Your task to perform on an android device: open a bookmark in the chrome app Image 0: 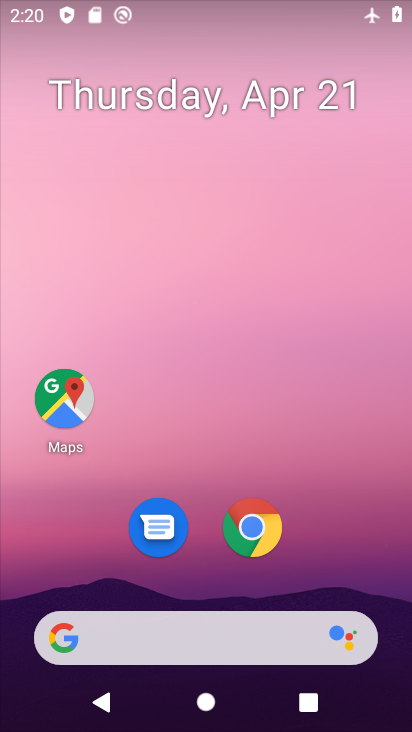
Step 0: click (251, 528)
Your task to perform on an android device: open a bookmark in the chrome app Image 1: 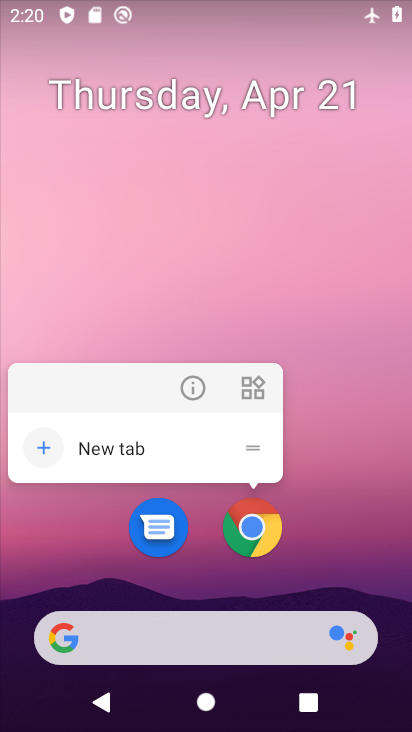
Step 1: click (249, 533)
Your task to perform on an android device: open a bookmark in the chrome app Image 2: 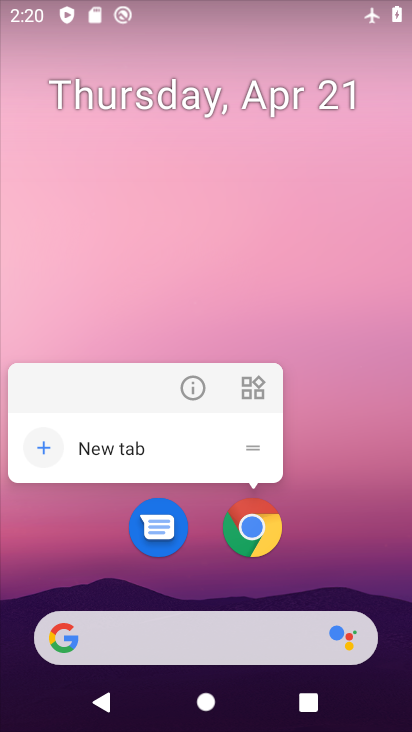
Step 2: click (237, 532)
Your task to perform on an android device: open a bookmark in the chrome app Image 3: 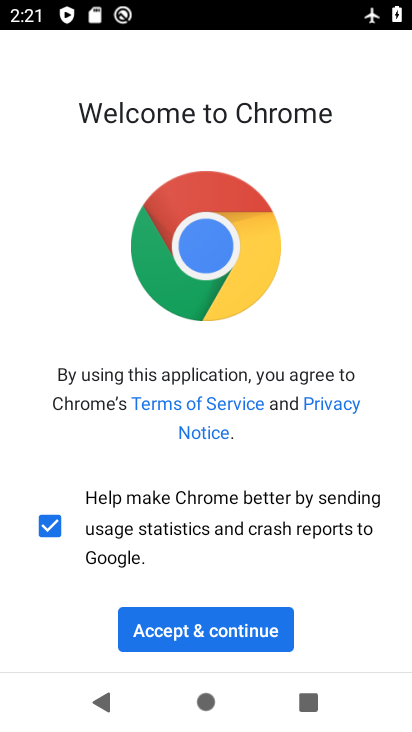
Step 3: click (227, 616)
Your task to perform on an android device: open a bookmark in the chrome app Image 4: 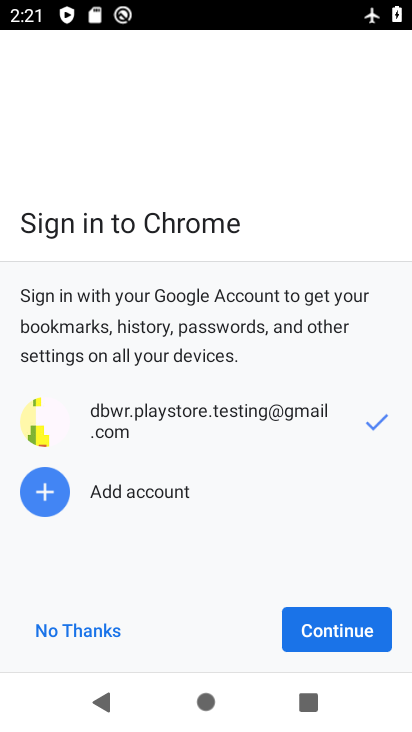
Step 4: click (338, 633)
Your task to perform on an android device: open a bookmark in the chrome app Image 5: 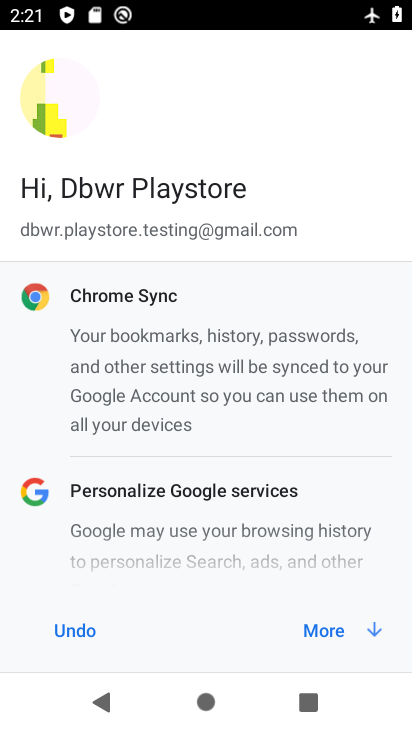
Step 5: click (338, 633)
Your task to perform on an android device: open a bookmark in the chrome app Image 6: 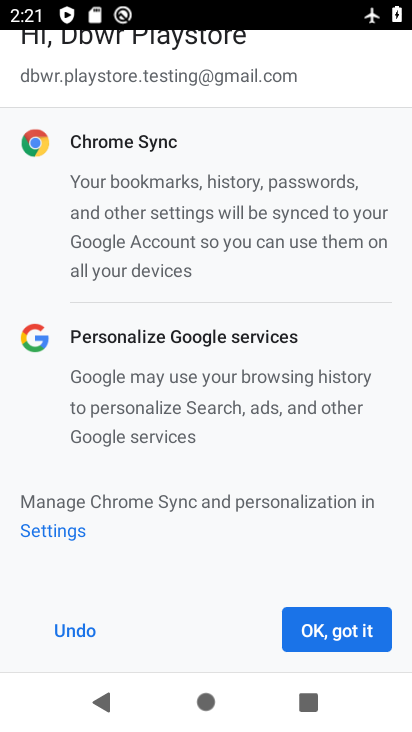
Step 6: click (338, 633)
Your task to perform on an android device: open a bookmark in the chrome app Image 7: 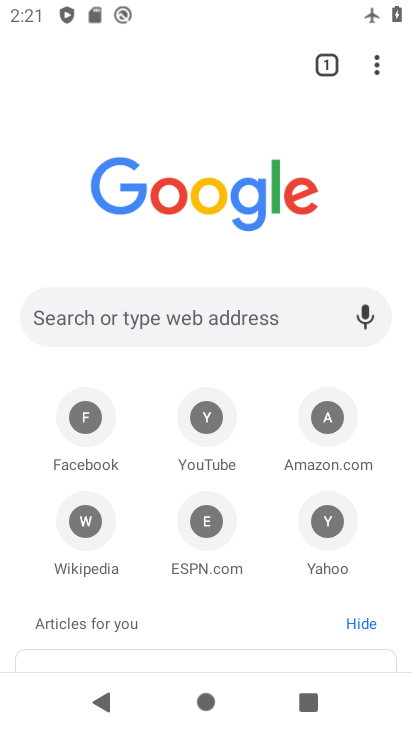
Step 7: click (376, 70)
Your task to perform on an android device: open a bookmark in the chrome app Image 8: 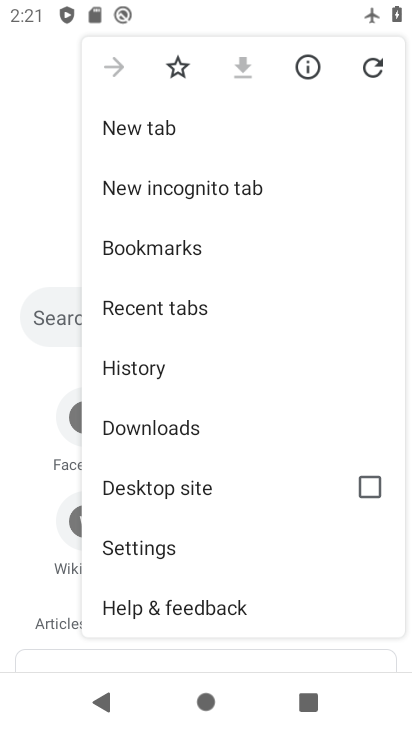
Step 8: click (163, 243)
Your task to perform on an android device: open a bookmark in the chrome app Image 9: 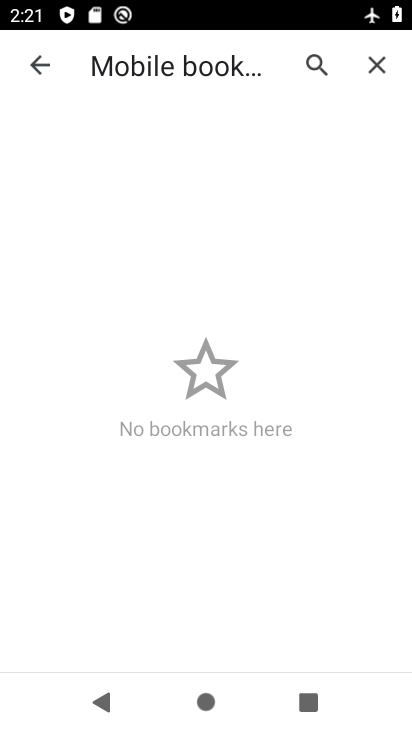
Step 9: task complete